Your task to perform on an android device: Open Chrome and go to settings Image 0: 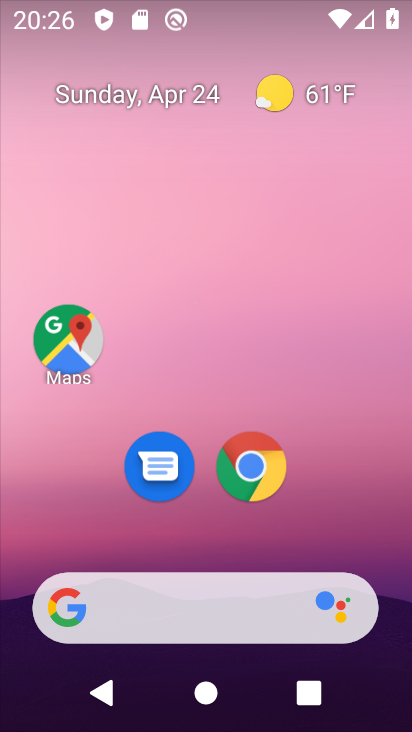
Step 0: click (269, 470)
Your task to perform on an android device: Open Chrome and go to settings Image 1: 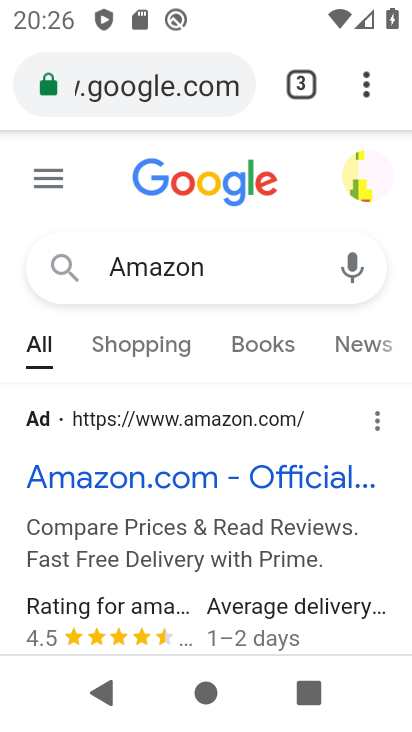
Step 1: click (371, 83)
Your task to perform on an android device: Open Chrome and go to settings Image 2: 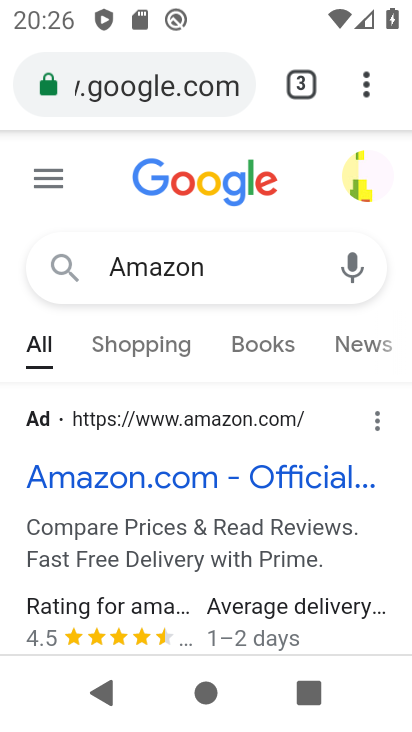
Step 2: click (358, 82)
Your task to perform on an android device: Open Chrome and go to settings Image 3: 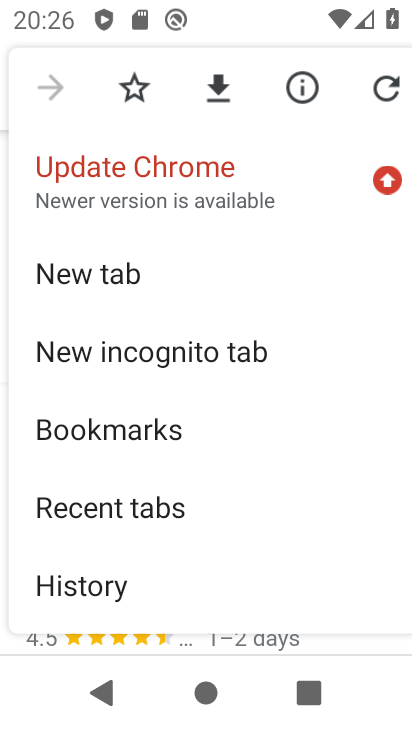
Step 3: drag from (167, 392) to (228, 109)
Your task to perform on an android device: Open Chrome and go to settings Image 4: 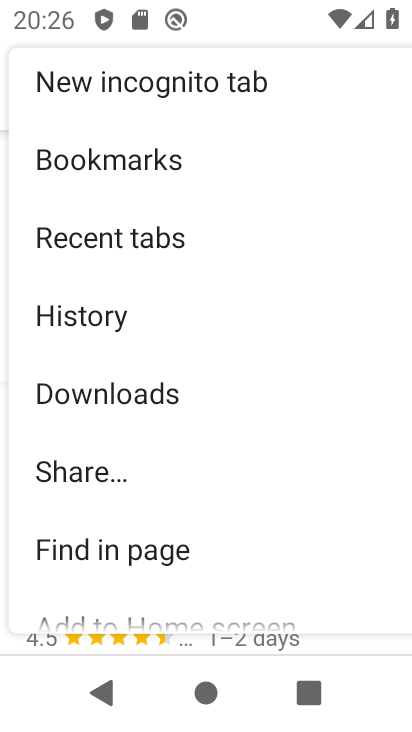
Step 4: drag from (110, 499) to (205, 43)
Your task to perform on an android device: Open Chrome and go to settings Image 5: 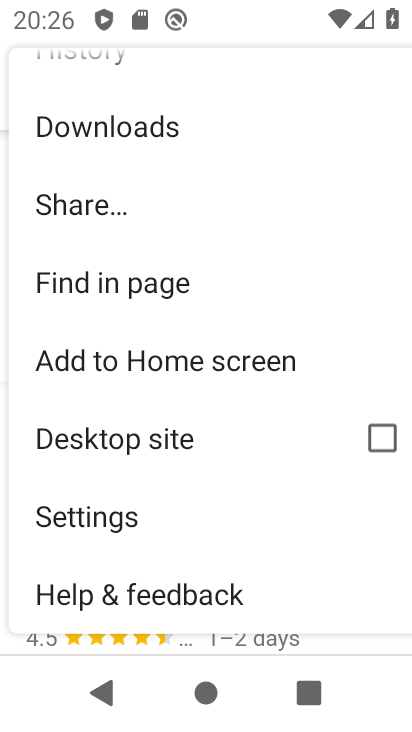
Step 5: click (93, 511)
Your task to perform on an android device: Open Chrome and go to settings Image 6: 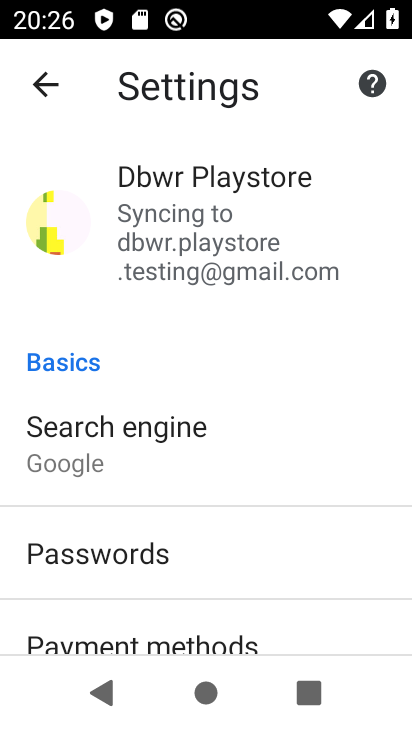
Step 6: task complete